Your task to perform on an android device: Go to Android settings Image 0: 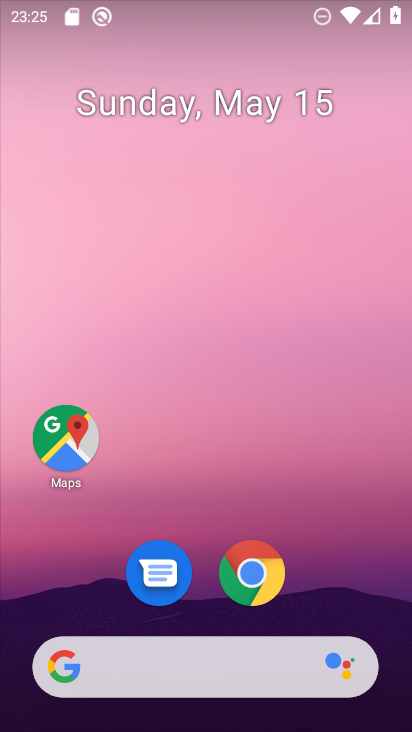
Step 0: press home button
Your task to perform on an android device: Go to Android settings Image 1: 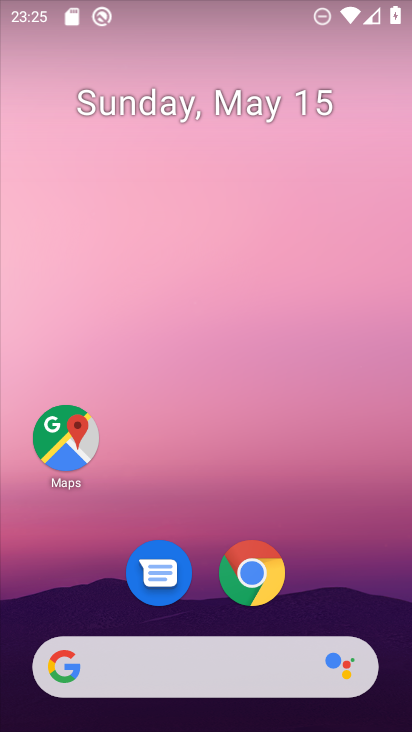
Step 1: drag from (395, 646) to (337, 145)
Your task to perform on an android device: Go to Android settings Image 2: 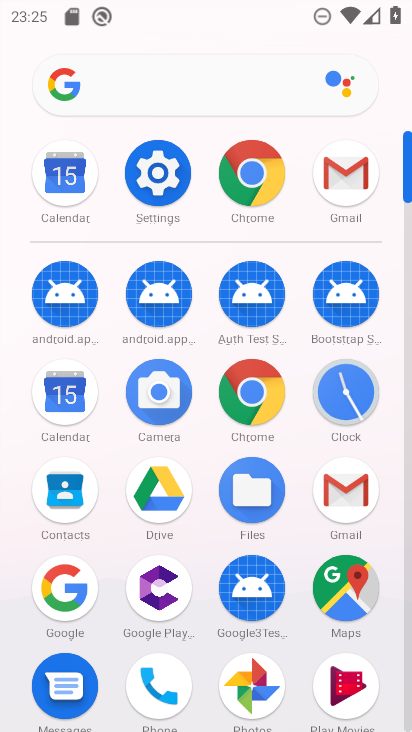
Step 2: click (138, 174)
Your task to perform on an android device: Go to Android settings Image 3: 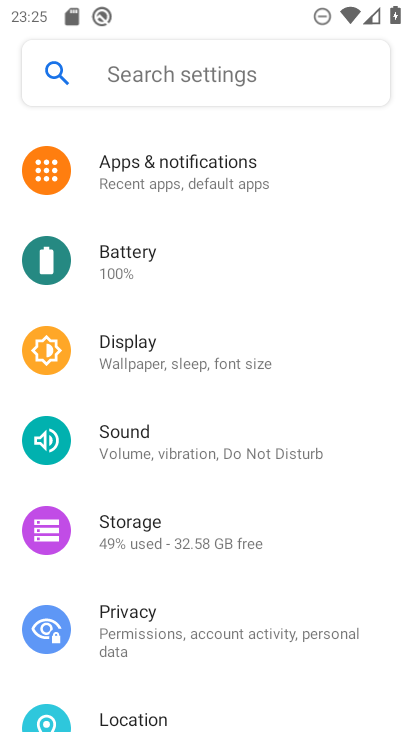
Step 3: drag from (159, 387) to (147, 105)
Your task to perform on an android device: Go to Android settings Image 4: 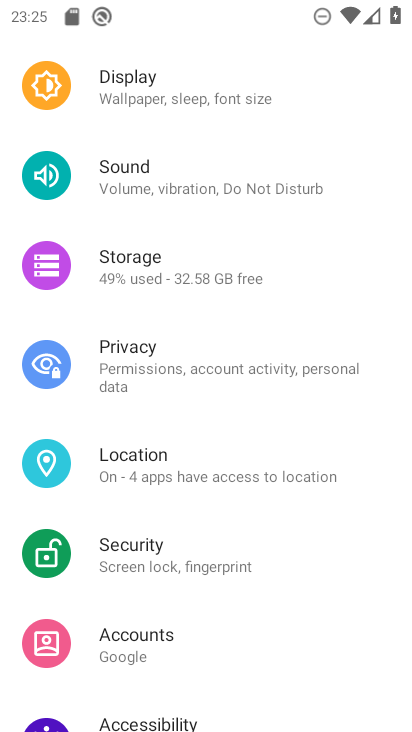
Step 4: drag from (147, 105) to (153, 1)
Your task to perform on an android device: Go to Android settings Image 5: 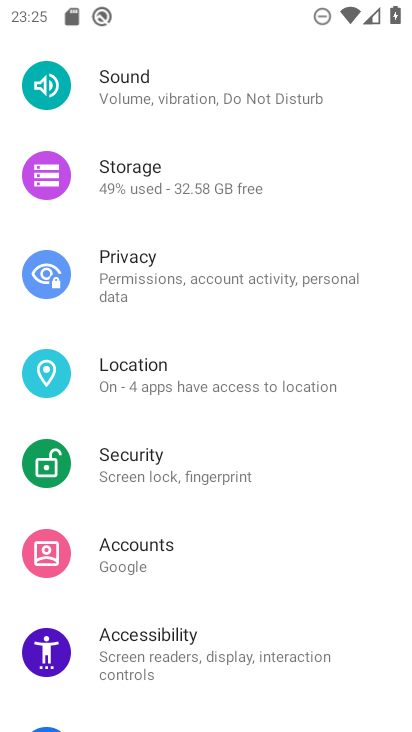
Step 5: drag from (135, 415) to (137, 102)
Your task to perform on an android device: Go to Android settings Image 6: 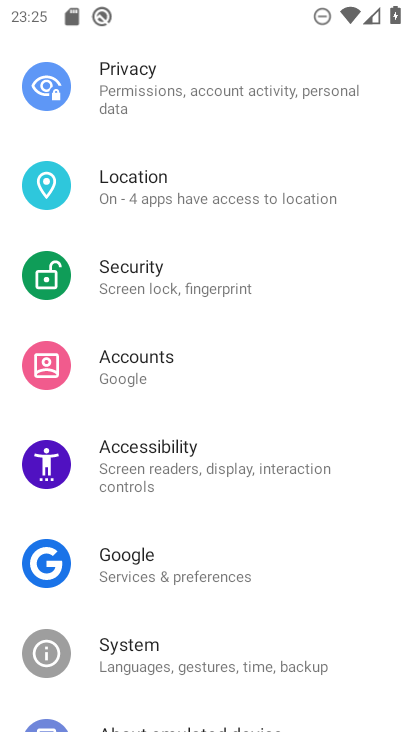
Step 6: drag from (167, 607) to (150, 83)
Your task to perform on an android device: Go to Android settings Image 7: 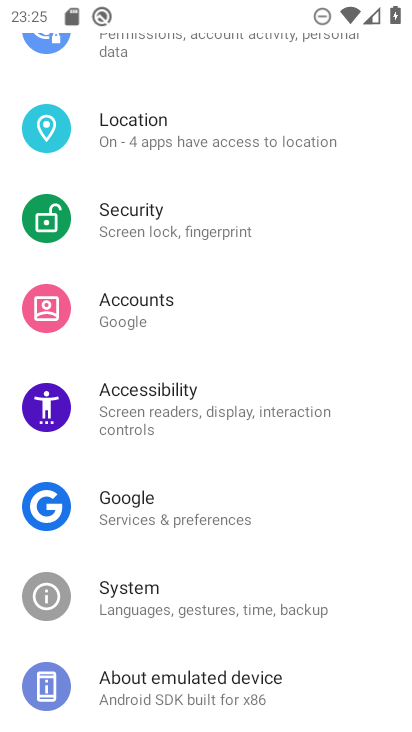
Step 7: click (156, 680)
Your task to perform on an android device: Go to Android settings Image 8: 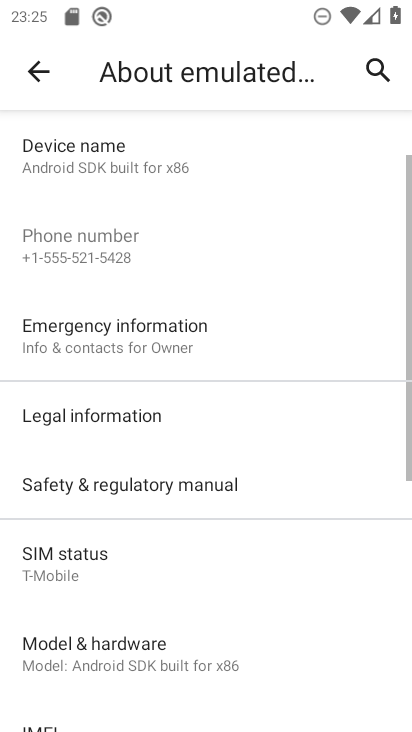
Step 8: drag from (196, 576) to (167, 142)
Your task to perform on an android device: Go to Android settings Image 9: 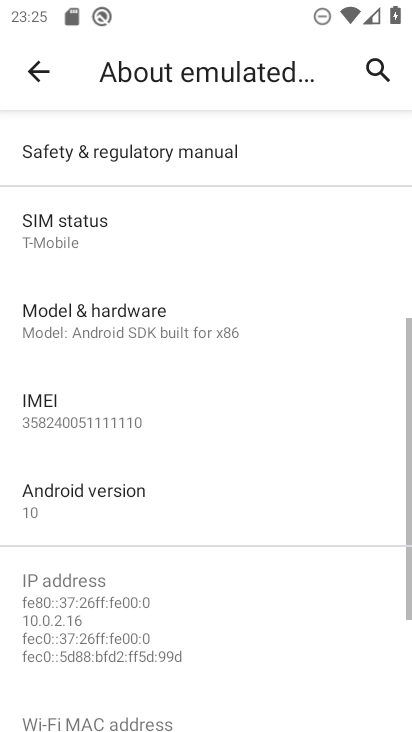
Step 9: click (134, 473)
Your task to perform on an android device: Go to Android settings Image 10: 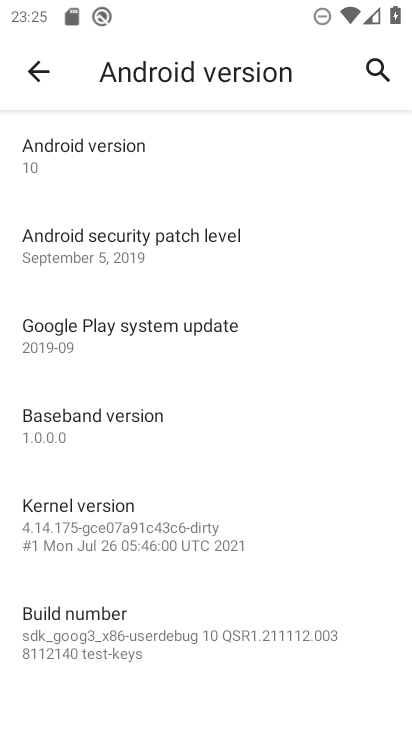
Step 10: task complete